Your task to perform on an android device: Go to Yahoo.com Image 0: 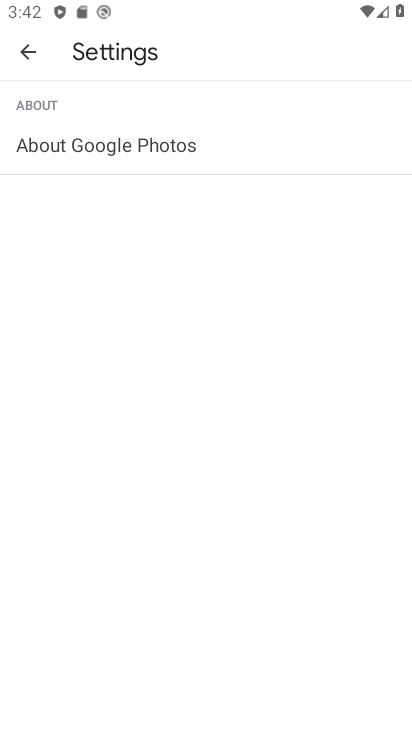
Step 0: press home button
Your task to perform on an android device: Go to Yahoo.com Image 1: 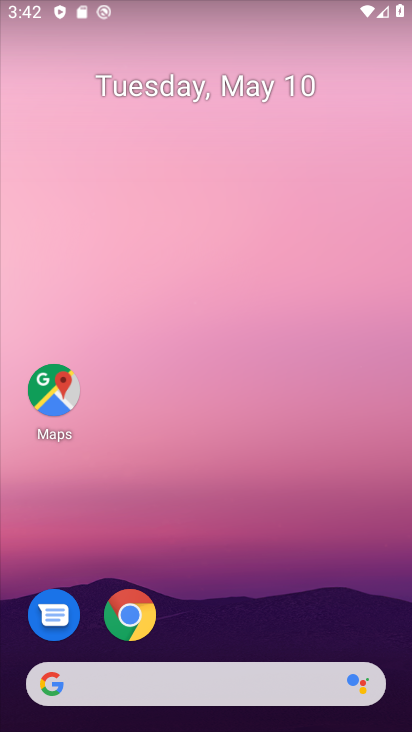
Step 1: click (131, 613)
Your task to perform on an android device: Go to Yahoo.com Image 2: 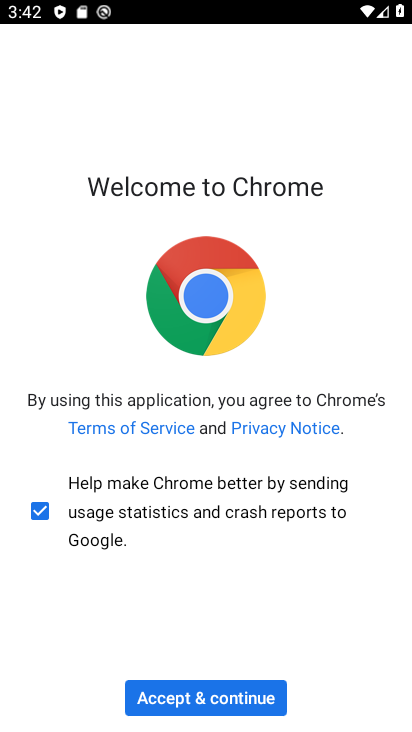
Step 2: click (199, 702)
Your task to perform on an android device: Go to Yahoo.com Image 3: 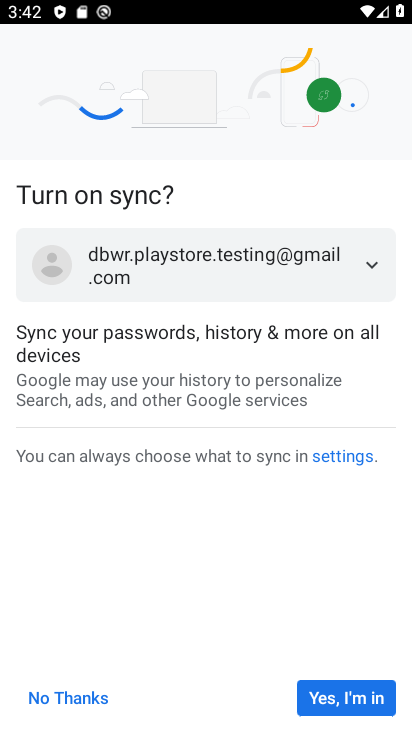
Step 3: click (216, 699)
Your task to perform on an android device: Go to Yahoo.com Image 4: 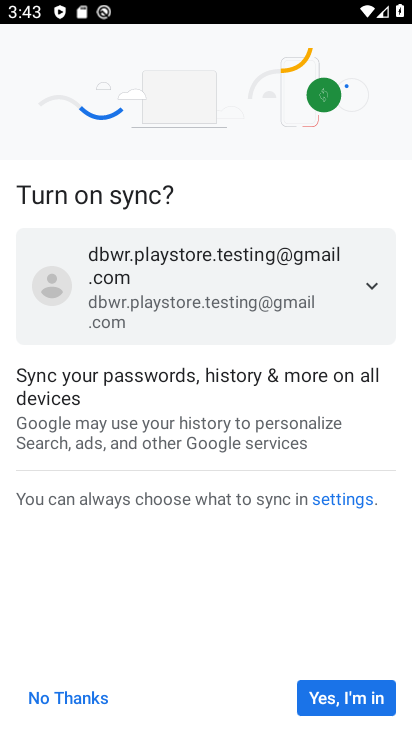
Step 4: click (327, 691)
Your task to perform on an android device: Go to Yahoo.com Image 5: 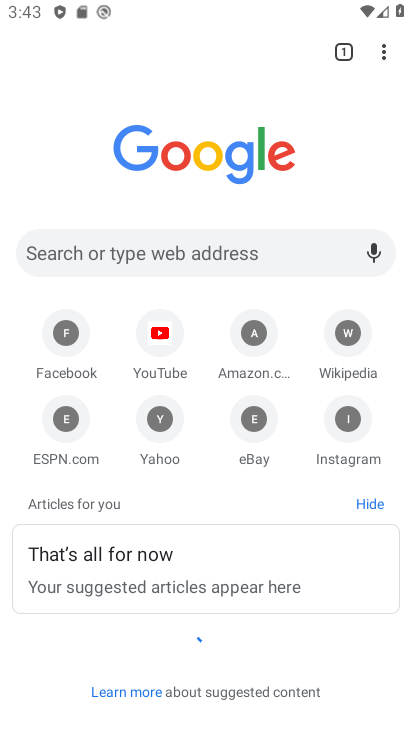
Step 5: click (164, 251)
Your task to perform on an android device: Go to Yahoo.com Image 6: 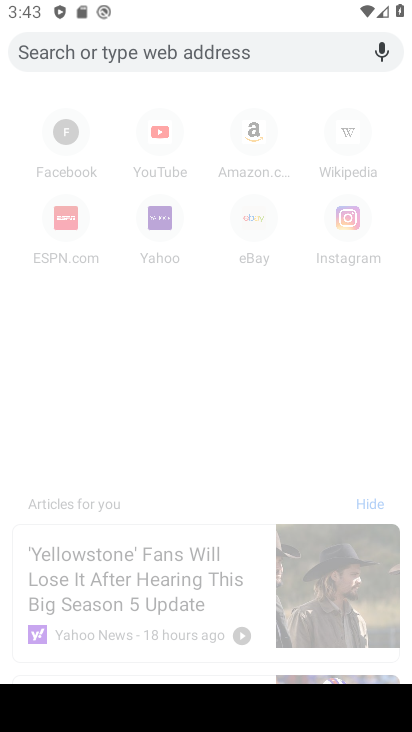
Step 6: type "Yahoo.com"
Your task to perform on an android device: Go to Yahoo.com Image 7: 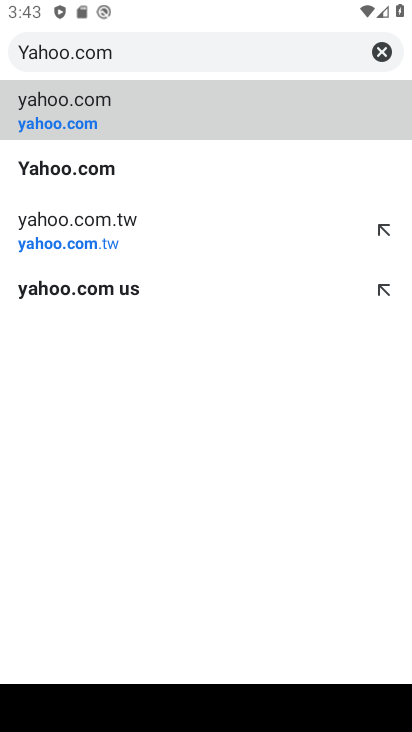
Step 7: click (90, 97)
Your task to perform on an android device: Go to Yahoo.com Image 8: 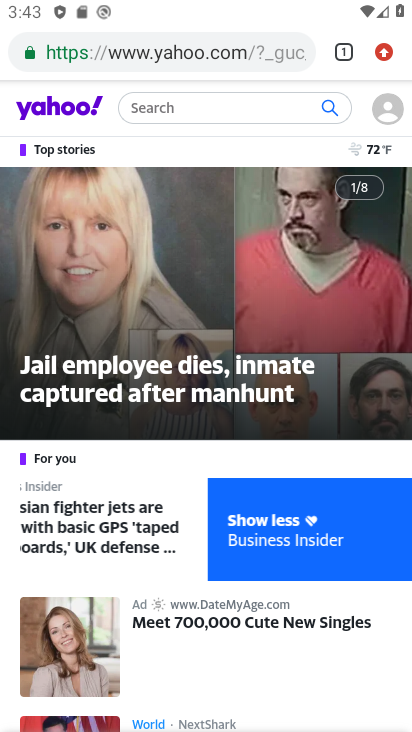
Step 8: task complete